Your task to perform on an android device: open app "Skype" (install if not already installed) and go to login screen Image 0: 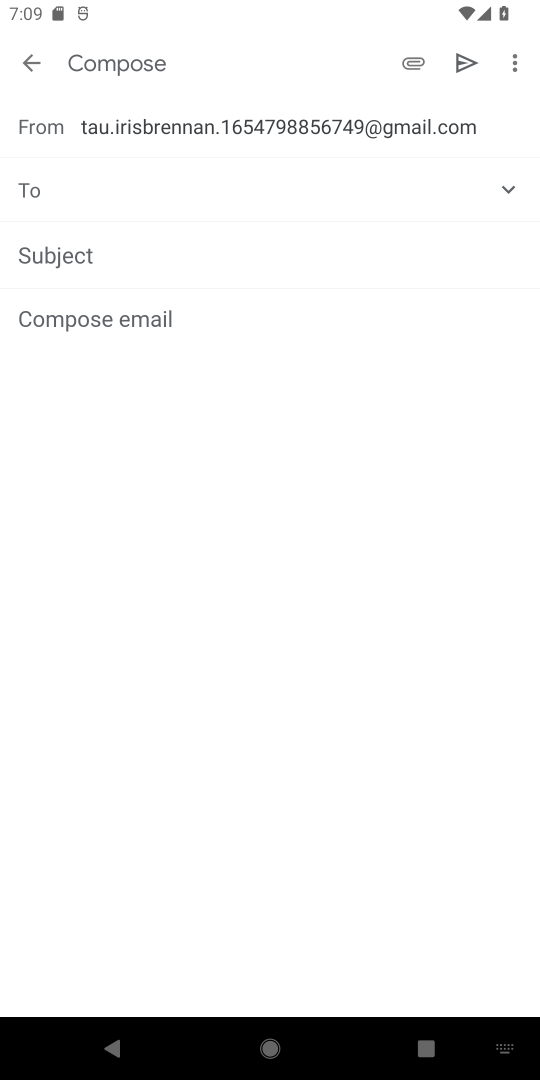
Step 0: press home button
Your task to perform on an android device: open app "Skype" (install if not already installed) and go to login screen Image 1: 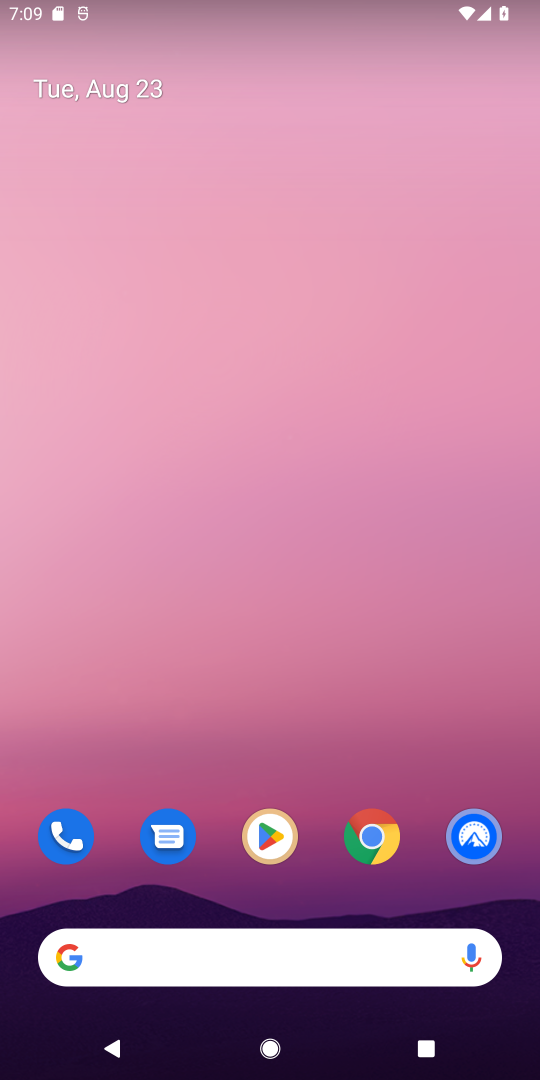
Step 1: click (273, 841)
Your task to perform on an android device: open app "Skype" (install if not already installed) and go to login screen Image 2: 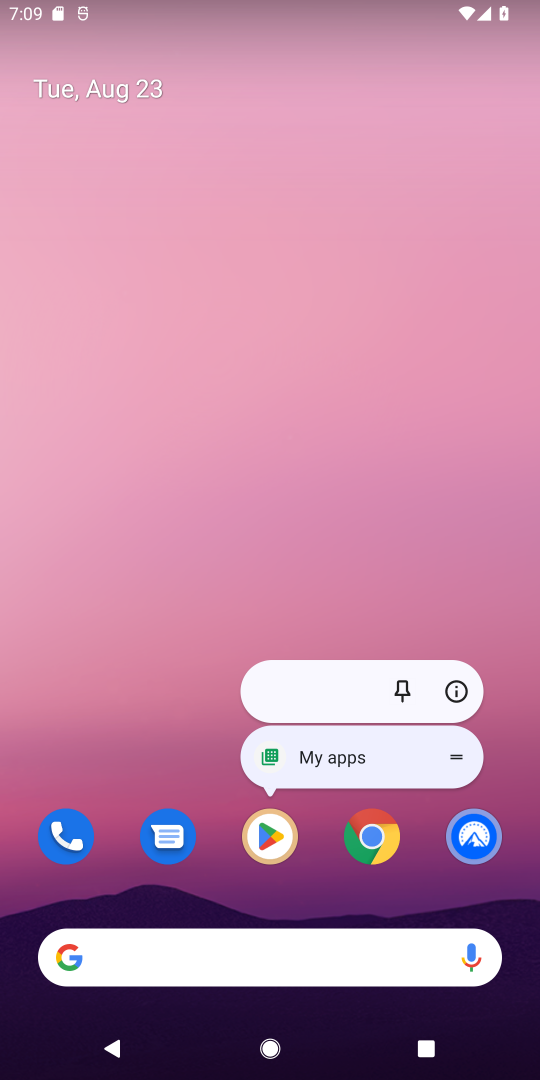
Step 2: click (263, 825)
Your task to perform on an android device: open app "Skype" (install if not already installed) and go to login screen Image 3: 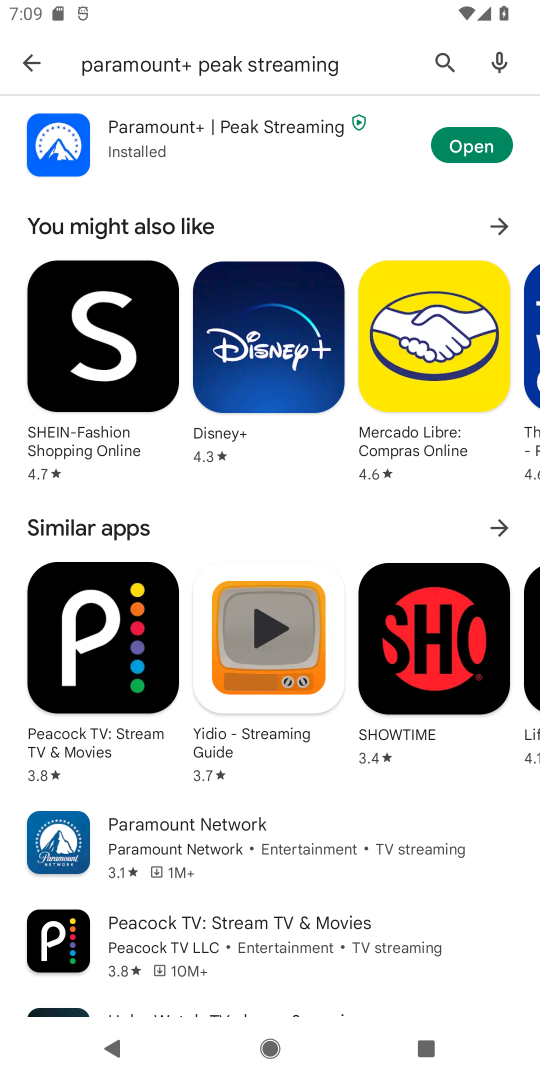
Step 3: click (442, 60)
Your task to perform on an android device: open app "Skype" (install if not already installed) and go to login screen Image 4: 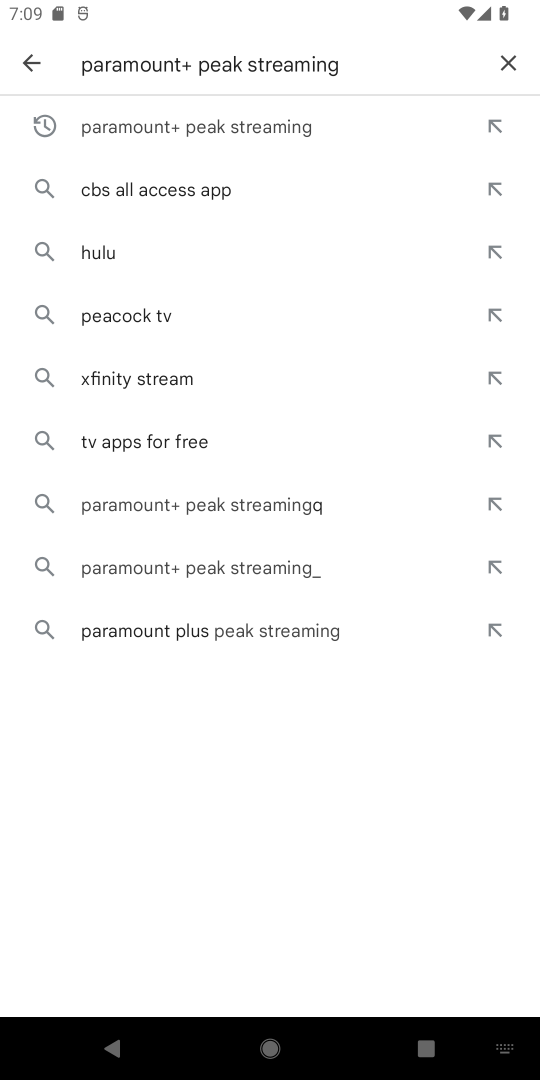
Step 4: click (508, 50)
Your task to perform on an android device: open app "Skype" (install if not already installed) and go to login screen Image 5: 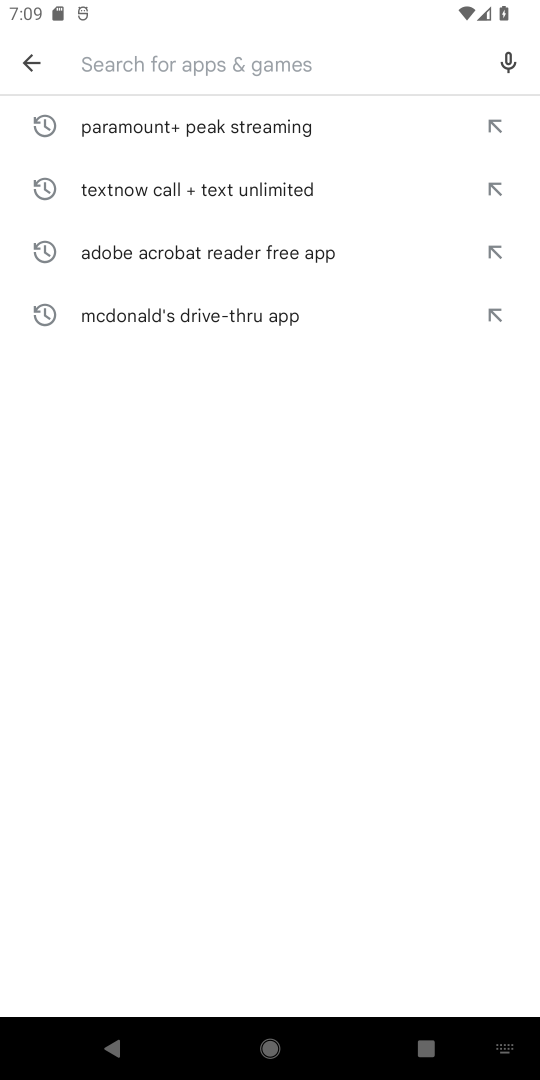
Step 5: type "Skype"
Your task to perform on an android device: open app "Skype" (install if not already installed) and go to login screen Image 6: 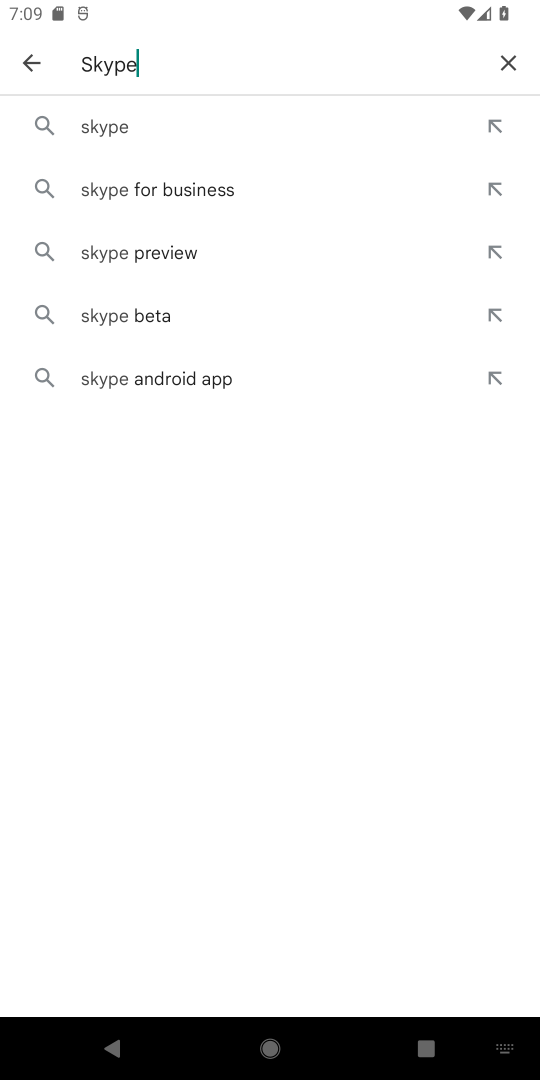
Step 6: click (116, 134)
Your task to perform on an android device: open app "Skype" (install if not already installed) and go to login screen Image 7: 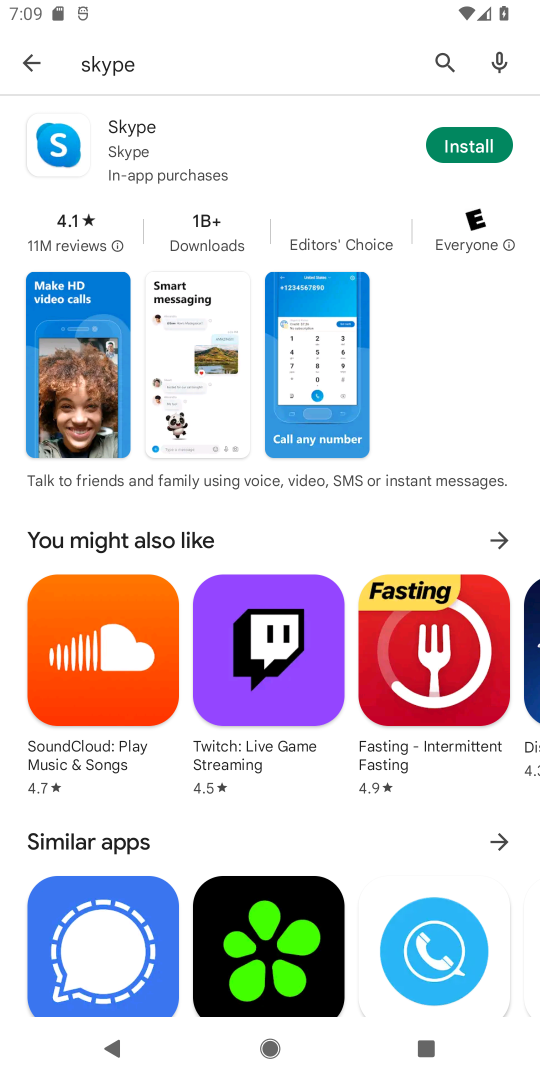
Step 7: click (458, 144)
Your task to perform on an android device: open app "Skype" (install if not already installed) and go to login screen Image 8: 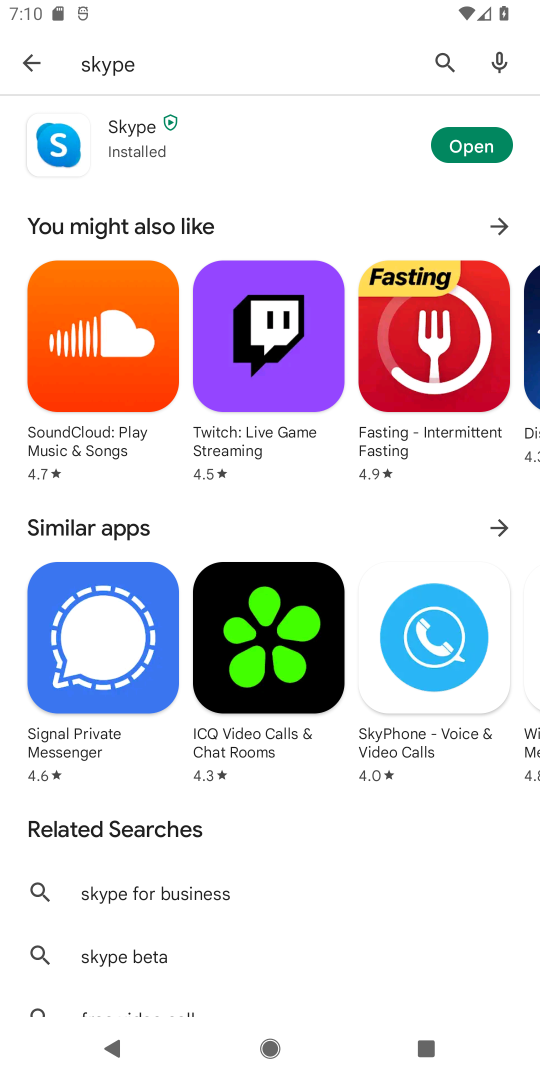
Step 8: click (474, 149)
Your task to perform on an android device: open app "Skype" (install if not already installed) and go to login screen Image 9: 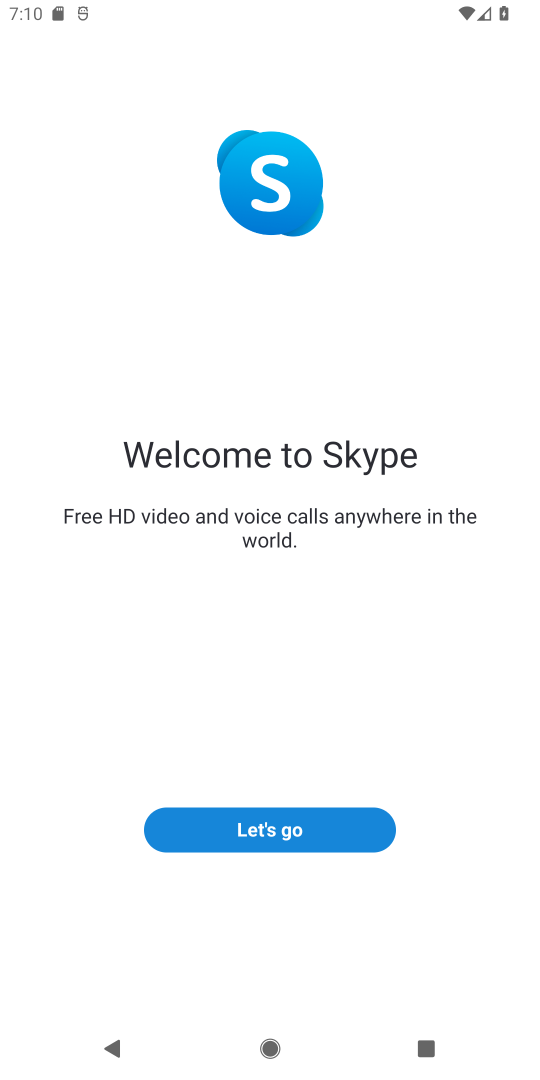
Step 9: click (313, 828)
Your task to perform on an android device: open app "Skype" (install if not already installed) and go to login screen Image 10: 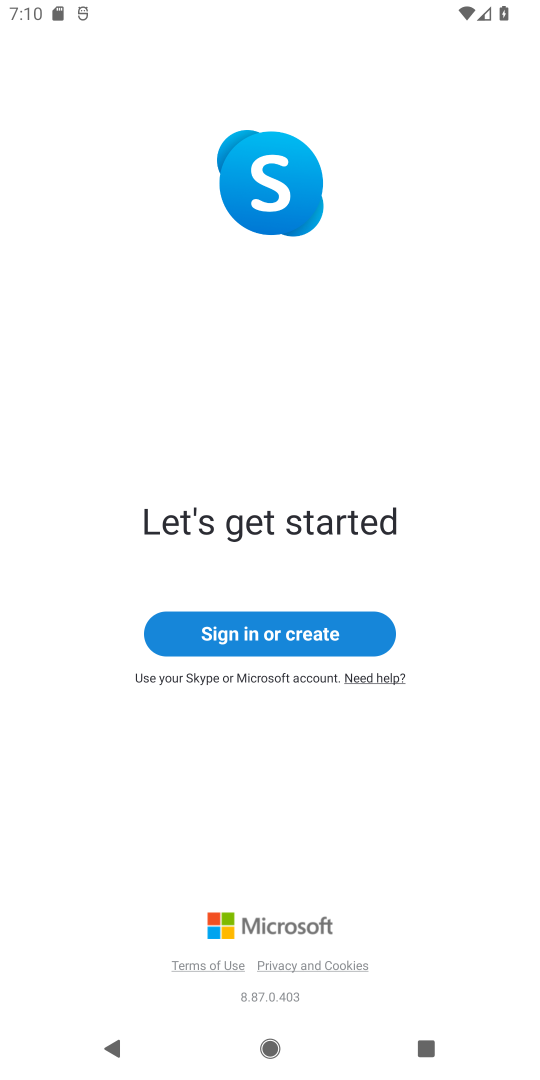
Step 10: click (307, 628)
Your task to perform on an android device: open app "Skype" (install if not already installed) and go to login screen Image 11: 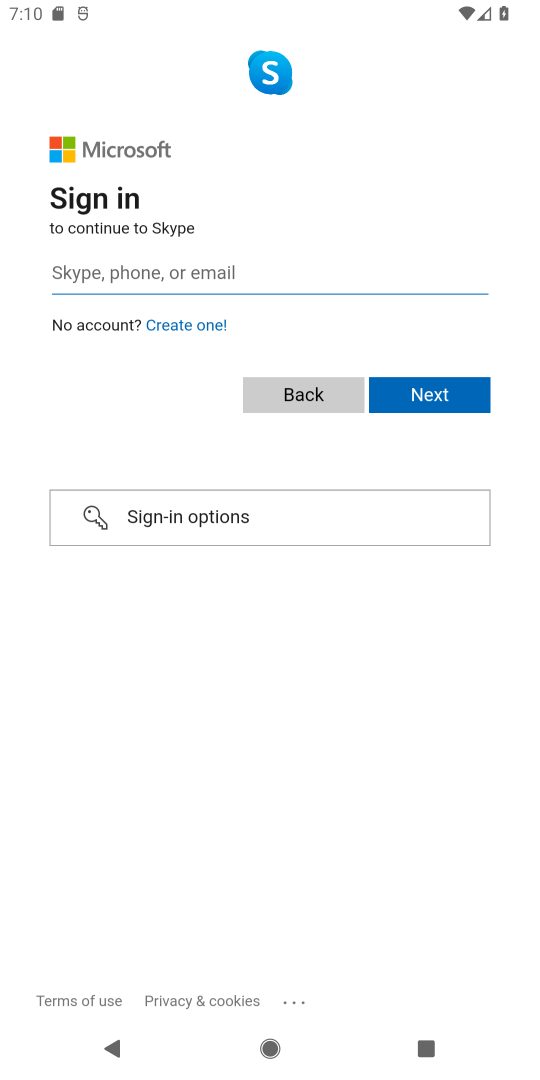
Step 11: task complete